Your task to perform on an android device: uninstall "Lyft - Rideshare, Bikes, Scooters & Transit" Image 0: 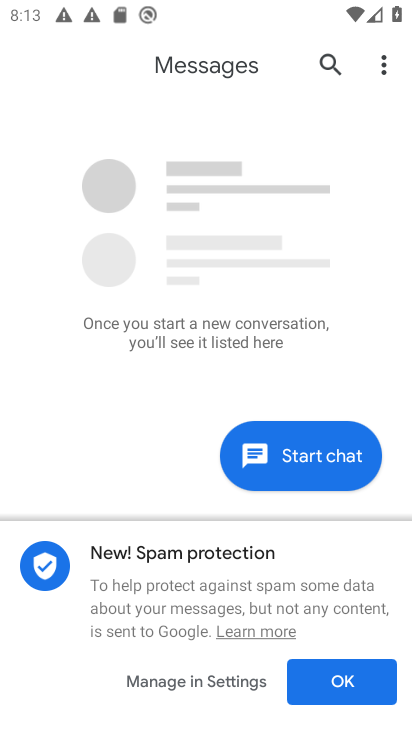
Step 0: press back button
Your task to perform on an android device: uninstall "Lyft - Rideshare, Bikes, Scooters & Transit" Image 1: 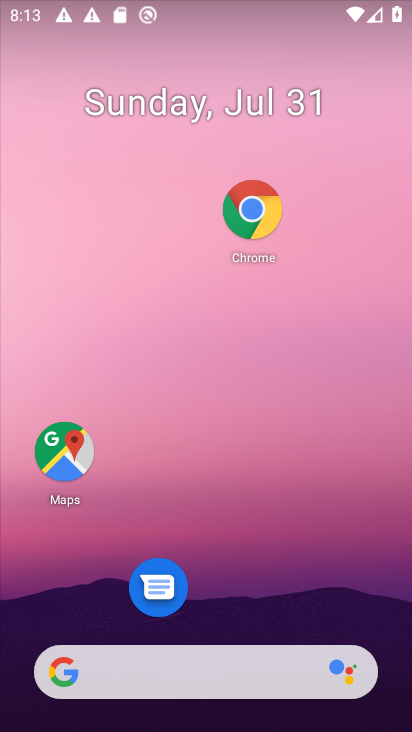
Step 1: drag from (269, 624) to (245, 190)
Your task to perform on an android device: uninstall "Lyft - Rideshare, Bikes, Scooters & Transit" Image 2: 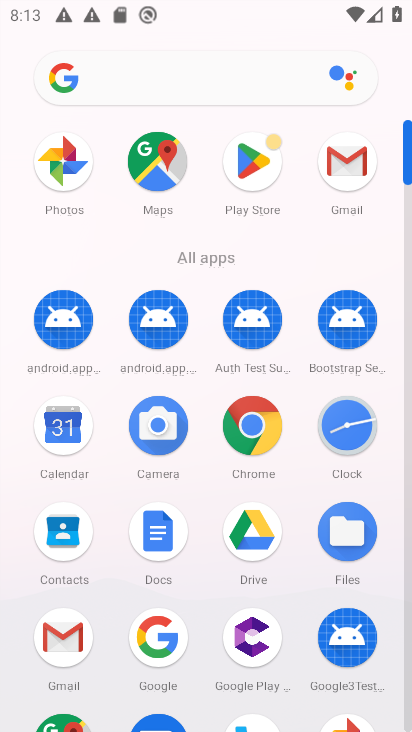
Step 2: click (253, 167)
Your task to perform on an android device: uninstall "Lyft - Rideshare, Bikes, Scooters & Transit" Image 3: 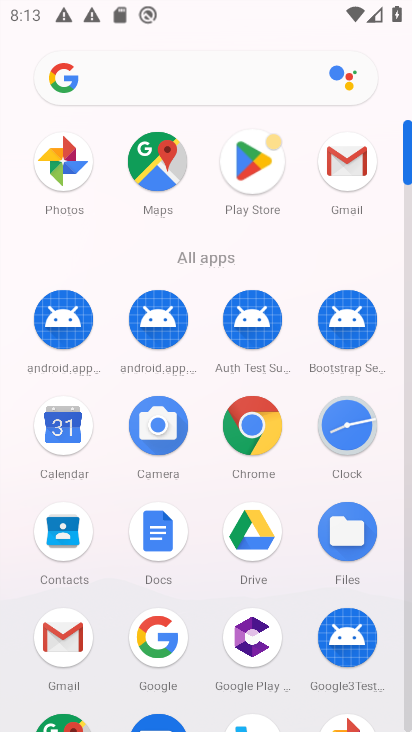
Step 3: click (253, 167)
Your task to perform on an android device: uninstall "Lyft - Rideshare, Bikes, Scooters & Transit" Image 4: 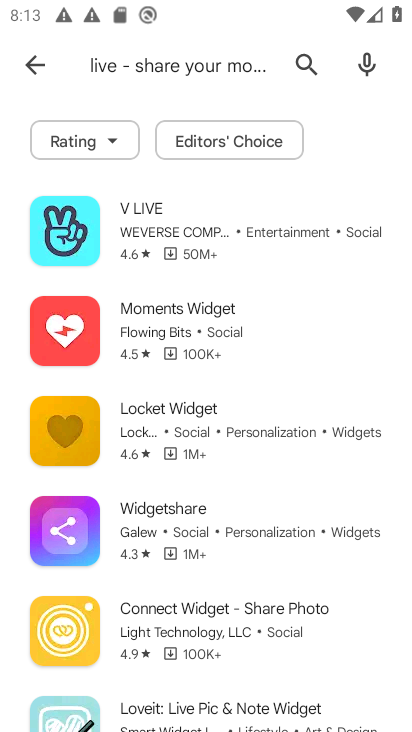
Step 4: click (35, 64)
Your task to perform on an android device: uninstall "Lyft - Rideshare, Bikes, Scooters & Transit" Image 5: 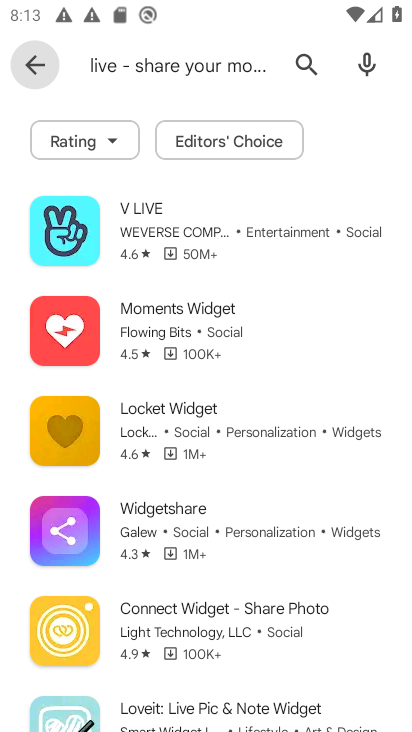
Step 5: click (34, 63)
Your task to perform on an android device: uninstall "Lyft - Rideshare, Bikes, Scooters & Transit" Image 6: 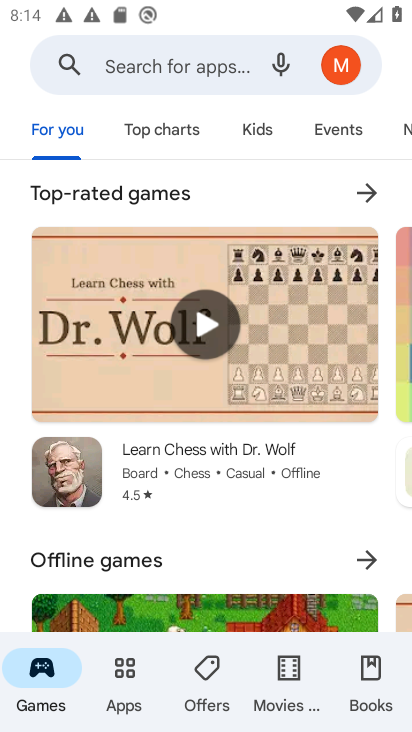
Step 6: click (125, 60)
Your task to perform on an android device: uninstall "Lyft - Rideshare, Bikes, Scooters & Transit" Image 7: 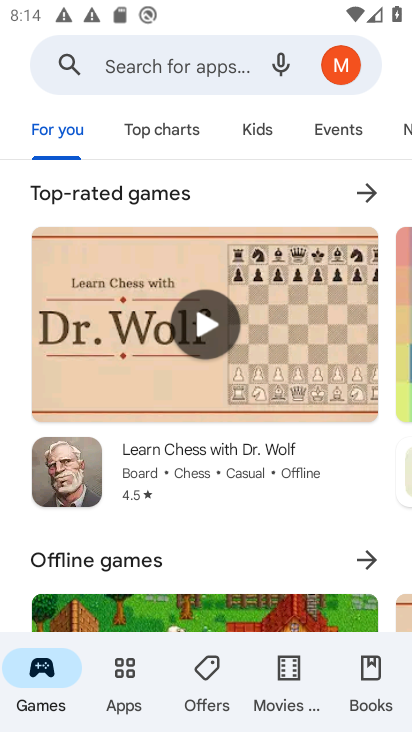
Step 7: click (125, 60)
Your task to perform on an android device: uninstall "Lyft - Rideshare, Bikes, Scooters & Transit" Image 8: 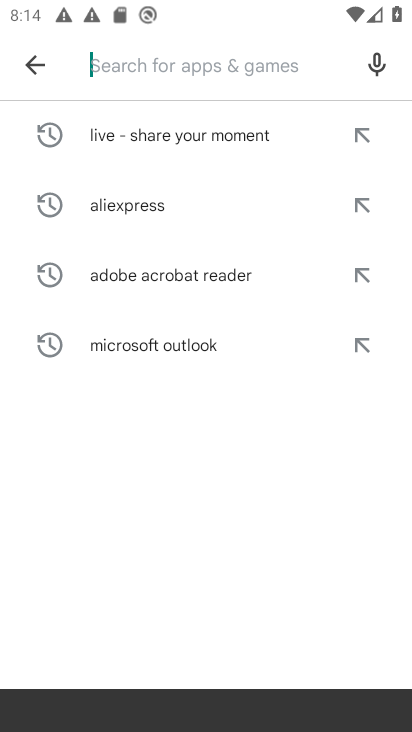
Step 8: click (130, 58)
Your task to perform on an android device: uninstall "Lyft - Rideshare, Bikes, Scooters & Transit" Image 9: 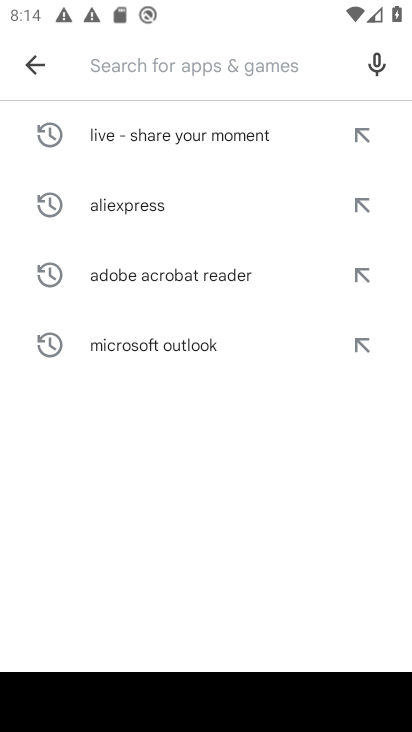
Step 9: type "lyt- rideshare, bike, scooters & transit"
Your task to perform on an android device: uninstall "Lyft - Rideshare, Bikes, Scooters & Transit" Image 10: 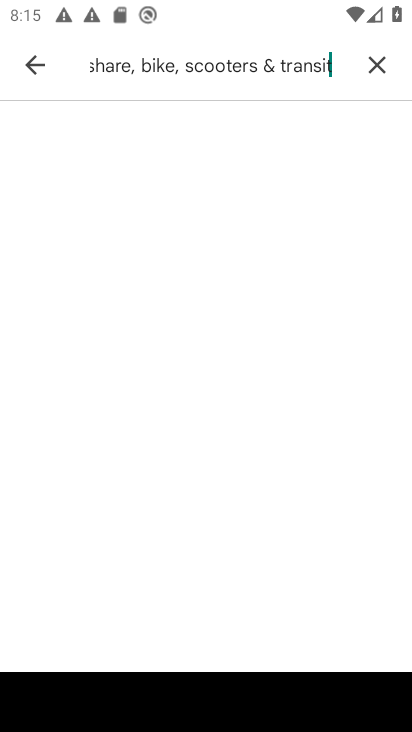
Step 10: click (301, 62)
Your task to perform on an android device: uninstall "Lyft - Rideshare, Bikes, Scooters & Transit" Image 11: 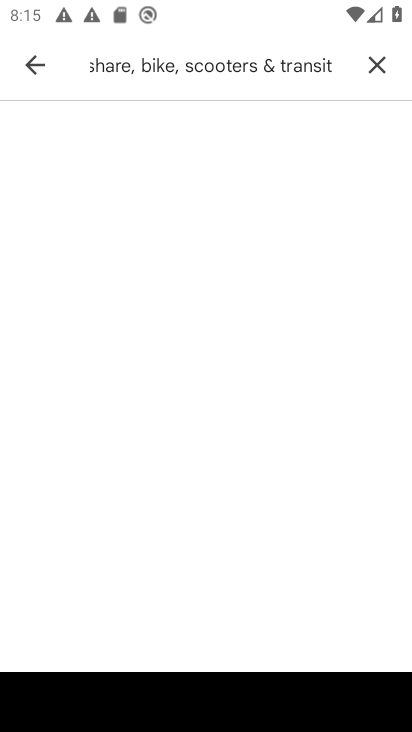
Step 11: click (301, 62)
Your task to perform on an android device: uninstall "Lyft - Rideshare, Bikes, Scooters & Transit" Image 12: 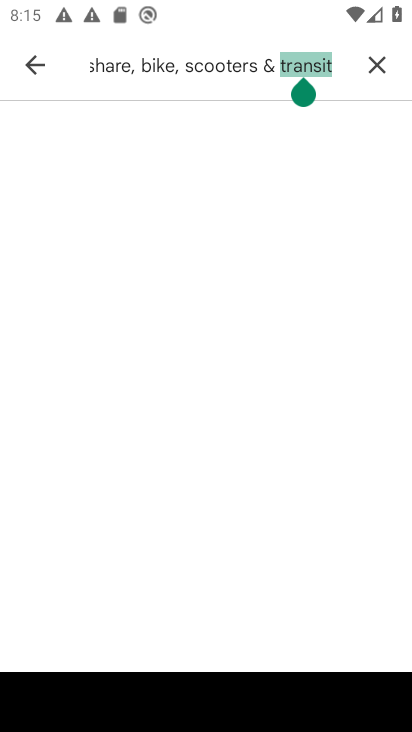
Step 12: click (301, 62)
Your task to perform on an android device: uninstall "Lyft - Rideshare, Bikes, Scooters & Transit" Image 13: 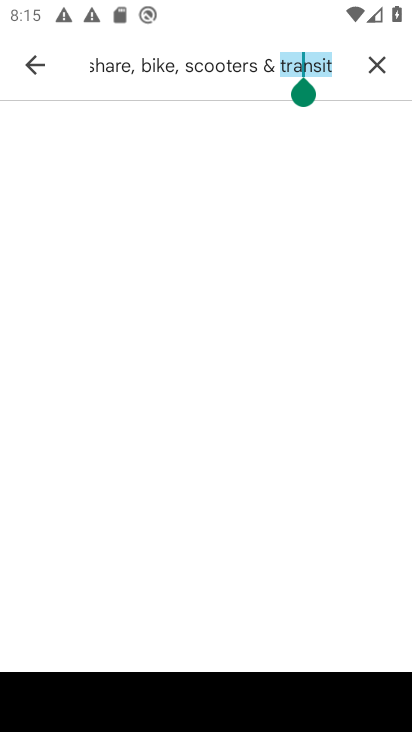
Step 13: click (298, 62)
Your task to perform on an android device: uninstall "Lyft - Rideshare, Bikes, Scooters & Transit" Image 14: 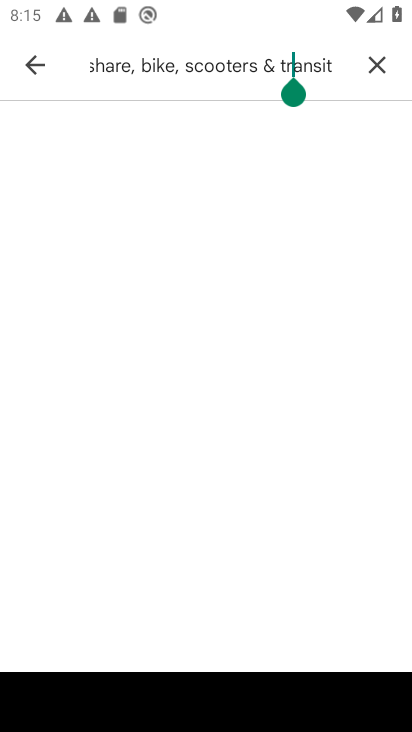
Step 14: click (329, 80)
Your task to perform on an android device: uninstall "Lyft - Rideshare, Bikes, Scooters & Transit" Image 15: 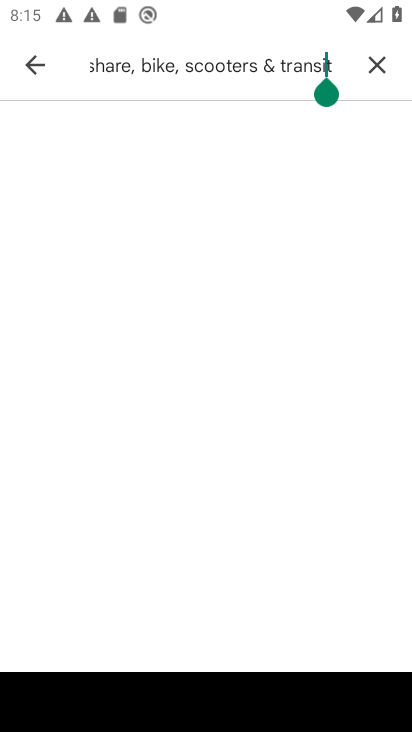
Step 15: click (334, 60)
Your task to perform on an android device: uninstall "Lyft - Rideshare, Bikes, Scooters & Transit" Image 16: 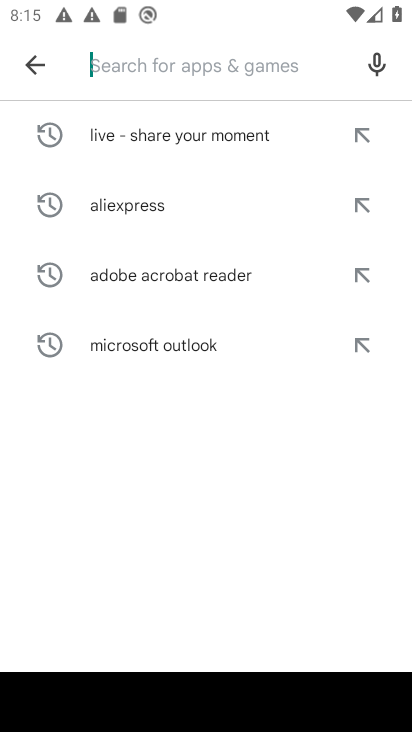
Step 16: task complete